Your task to perform on an android device: allow notifications from all sites in the chrome app Image 0: 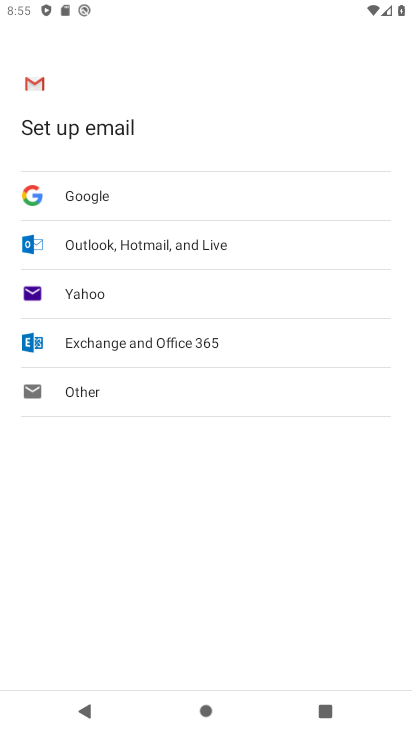
Step 0: press home button
Your task to perform on an android device: allow notifications from all sites in the chrome app Image 1: 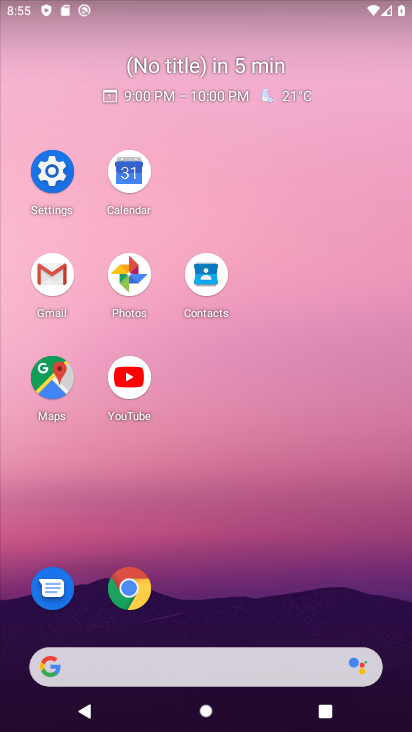
Step 1: click (131, 590)
Your task to perform on an android device: allow notifications from all sites in the chrome app Image 2: 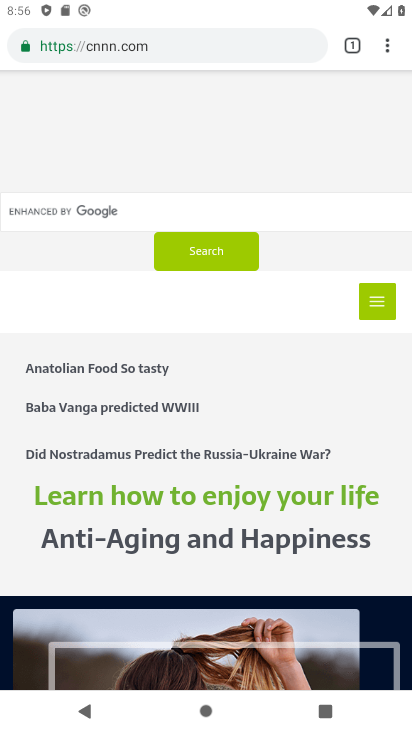
Step 2: click (387, 43)
Your task to perform on an android device: allow notifications from all sites in the chrome app Image 3: 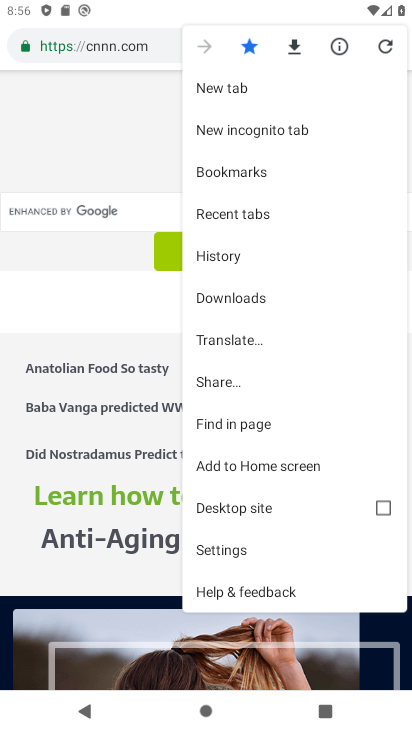
Step 3: click (248, 551)
Your task to perform on an android device: allow notifications from all sites in the chrome app Image 4: 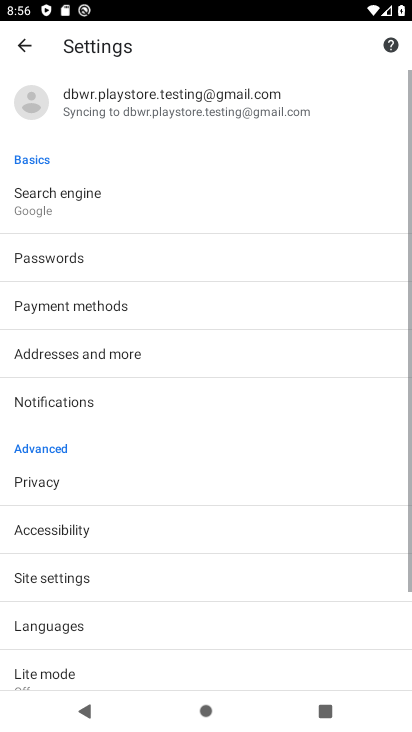
Step 4: drag from (231, 466) to (259, 206)
Your task to perform on an android device: allow notifications from all sites in the chrome app Image 5: 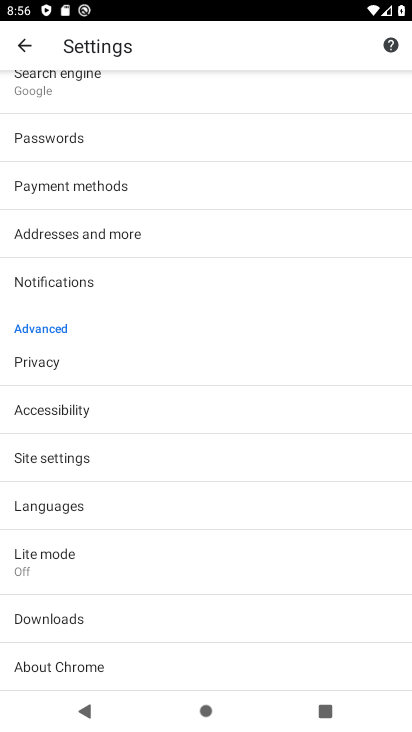
Step 5: click (110, 452)
Your task to perform on an android device: allow notifications from all sites in the chrome app Image 6: 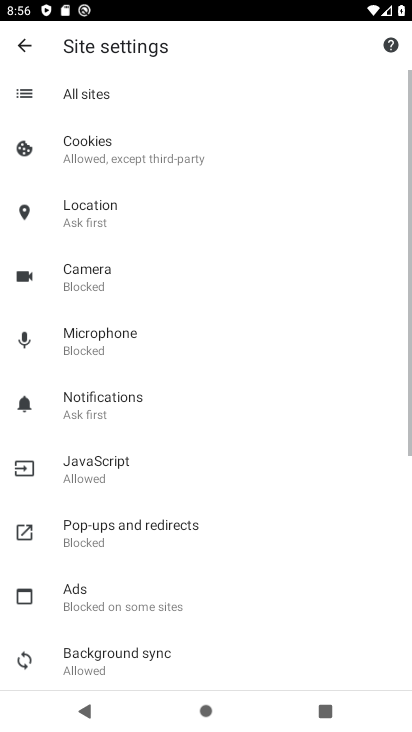
Step 6: click (207, 141)
Your task to perform on an android device: allow notifications from all sites in the chrome app Image 7: 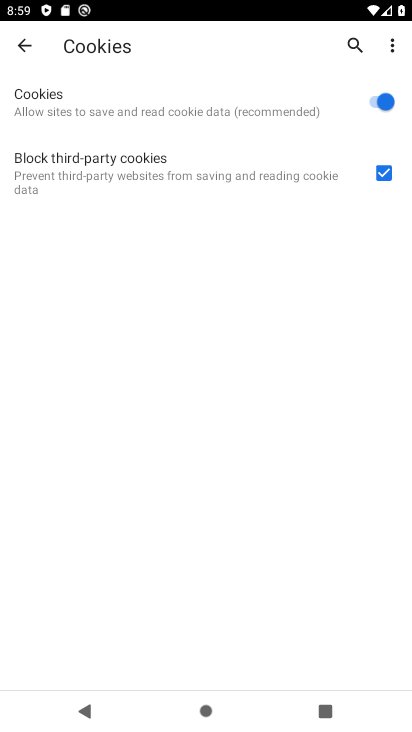
Step 7: task complete